Your task to perform on an android device: change notifications settings Image 0: 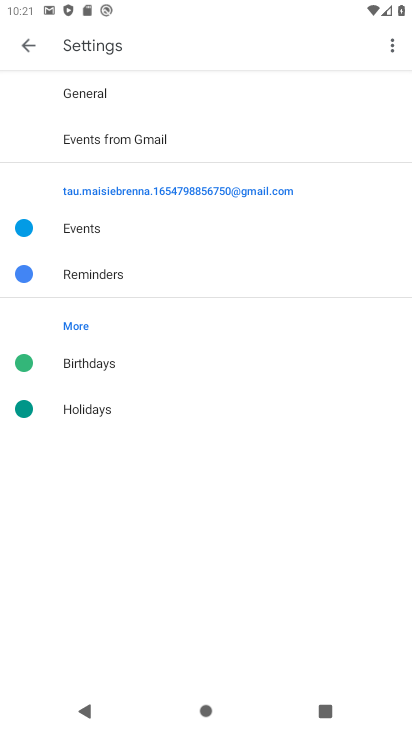
Step 0: press home button
Your task to perform on an android device: change notifications settings Image 1: 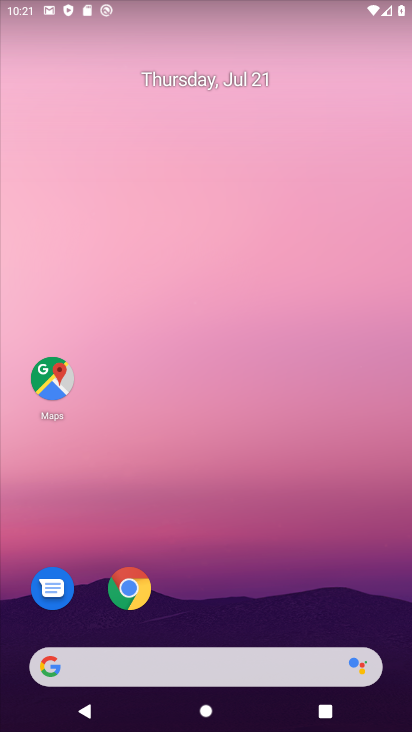
Step 1: drag from (211, 578) to (253, 267)
Your task to perform on an android device: change notifications settings Image 2: 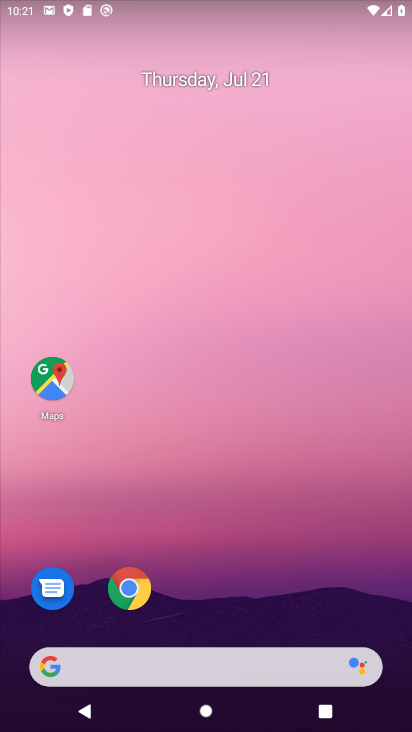
Step 2: drag from (229, 588) to (271, 239)
Your task to perform on an android device: change notifications settings Image 3: 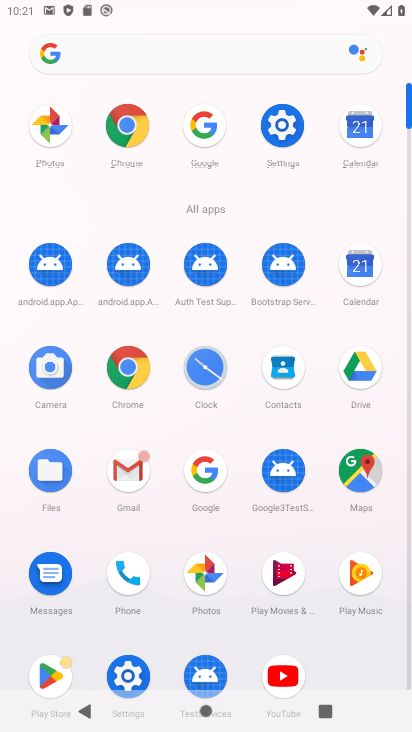
Step 3: click (274, 137)
Your task to perform on an android device: change notifications settings Image 4: 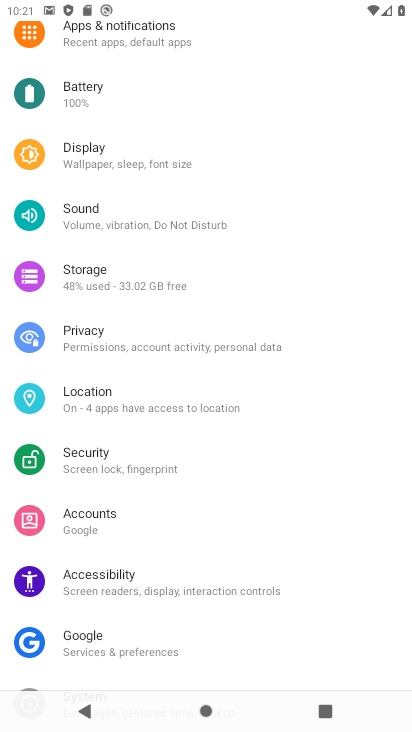
Step 4: click (141, 37)
Your task to perform on an android device: change notifications settings Image 5: 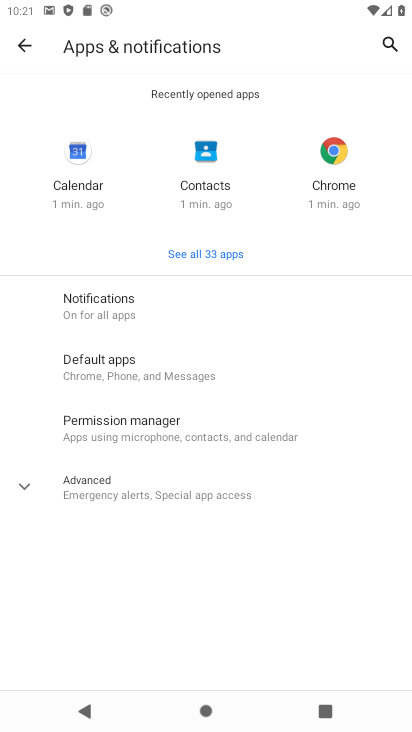
Step 5: click (100, 312)
Your task to perform on an android device: change notifications settings Image 6: 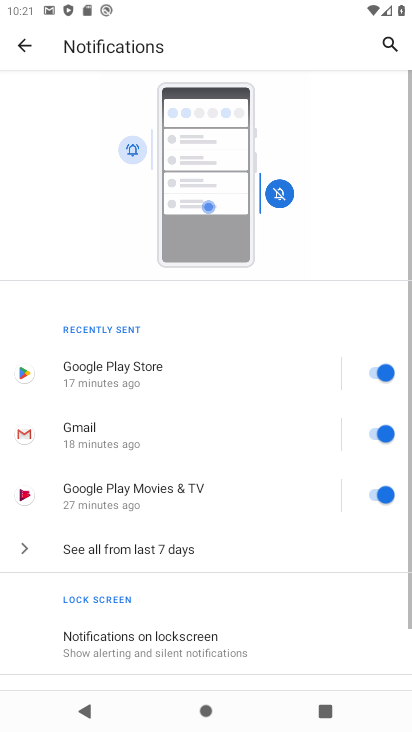
Step 6: task complete